Your task to perform on an android device: open wifi settings Image 0: 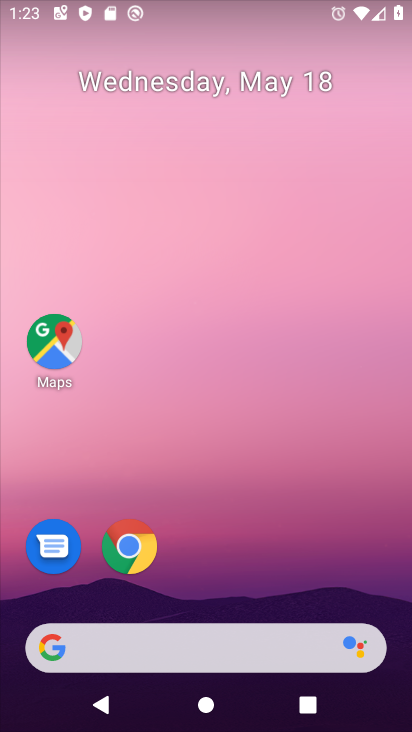
Step 0: drag from (191, 592) to (261, 81)
Your task to perform on an android device: open wifi settings Image 1: 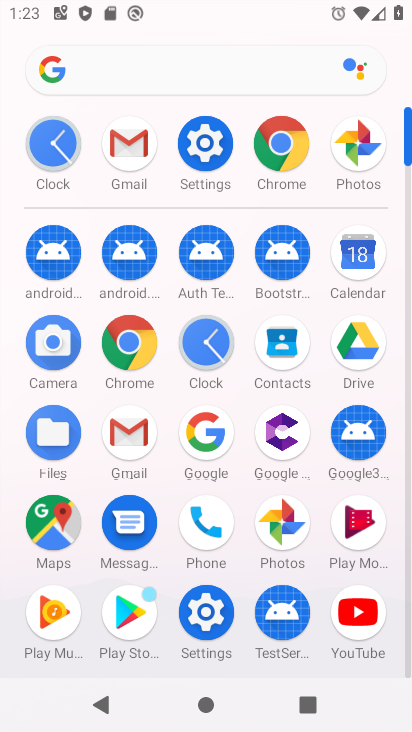
Step 1: click (199, 175)
Your task to perform on an android device: open wifi settings Image 2: 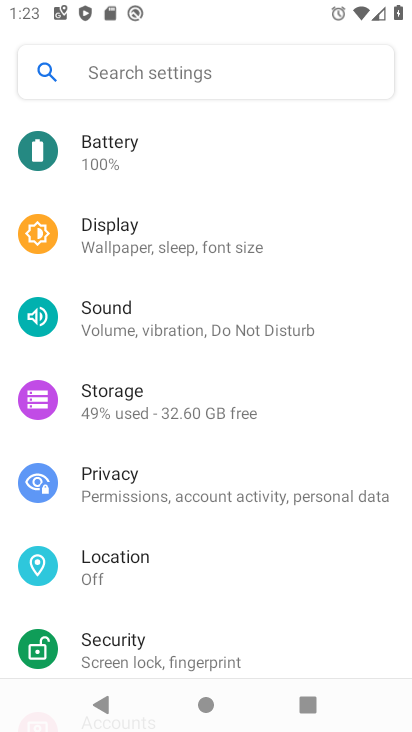
Step 2: drag from (199, 182) to (207, 461)
Your task to perform on an android device: open wifi settings Image 3: 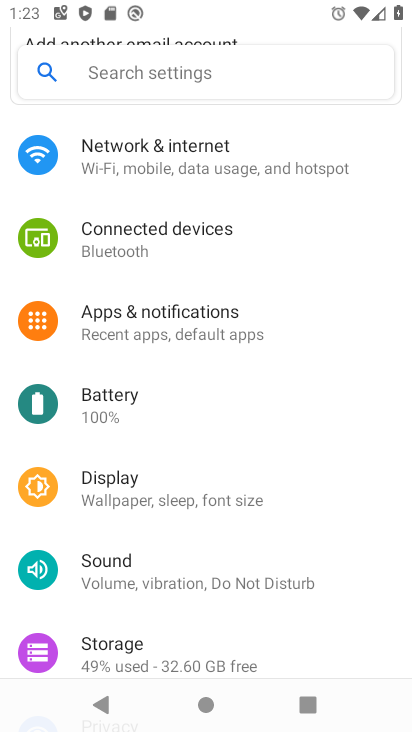
Step 3: click (254, 170)
Your task to perform on an android device: open wifi settings Image 4: 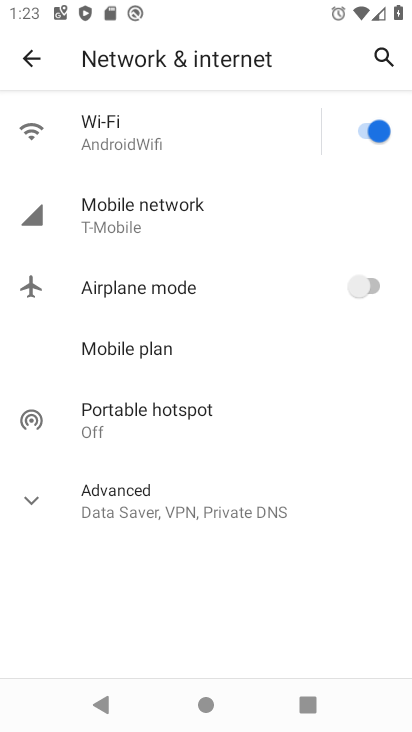
Step 4: click (210, 127)
Your task to perform on an android device: open wifi settings Image 5: 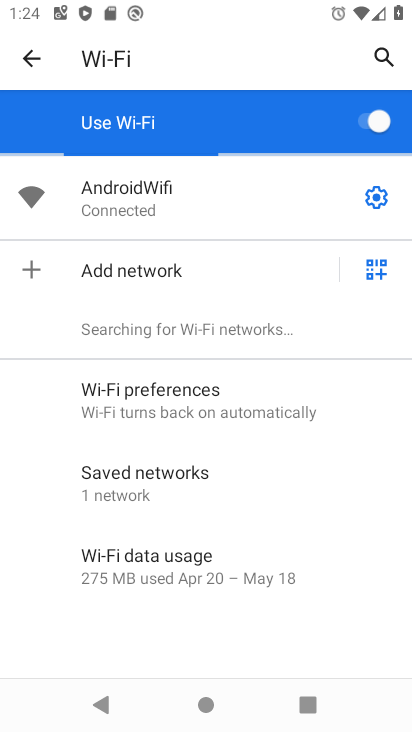
Step 5: task complete